Your task to perform on an android device: turn on bluetooth scan Image 0: 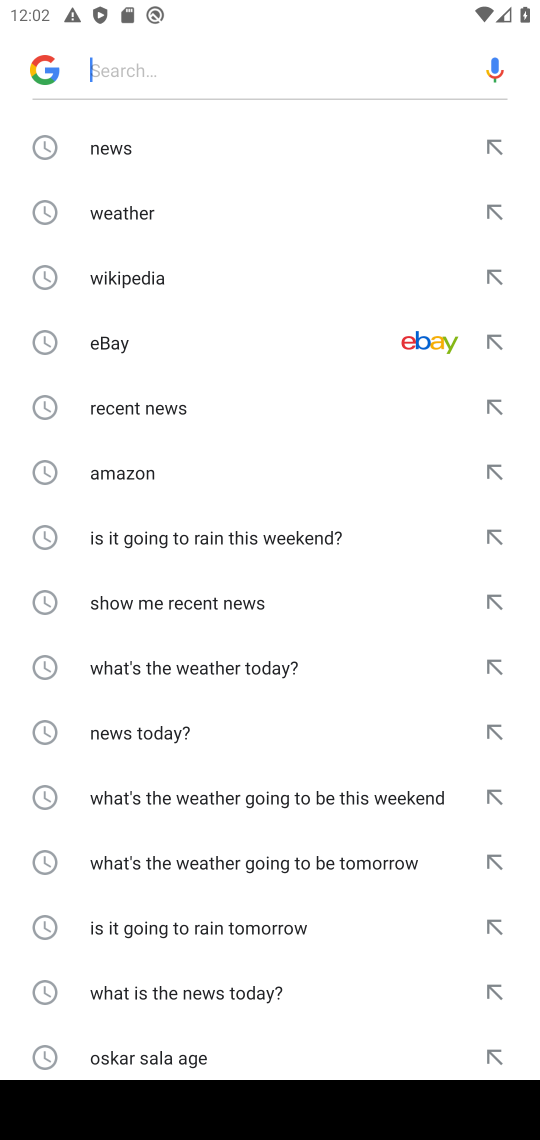
Step 0: press home button
Your task to perform on an android device: turn on bluetooth scan Image 1: 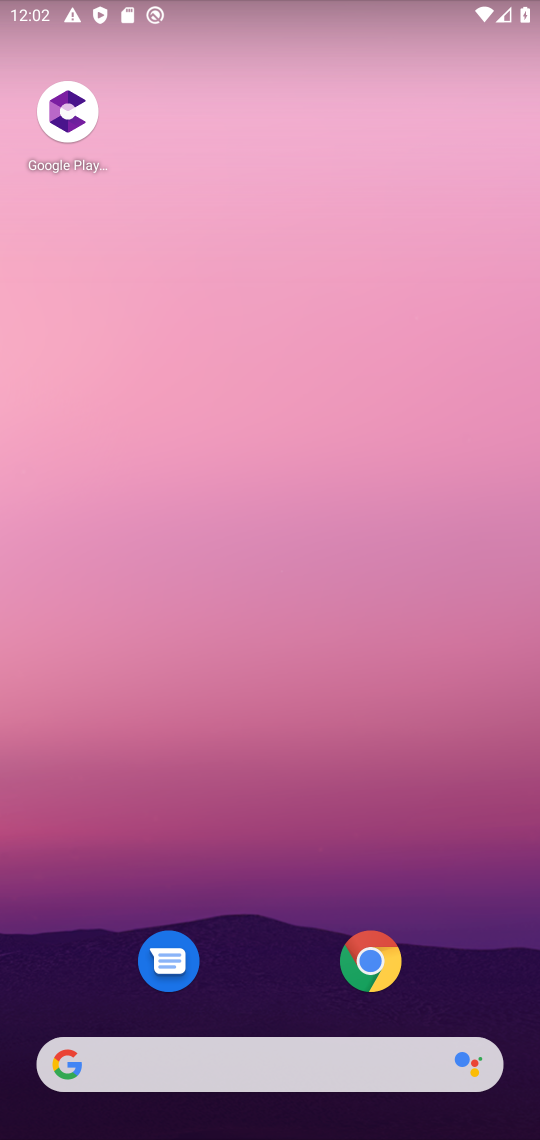
Step 1: drag from (265, 1043) to (509, 113)
Your task to perform on an android device: turn on bluetooth scan Image 2: 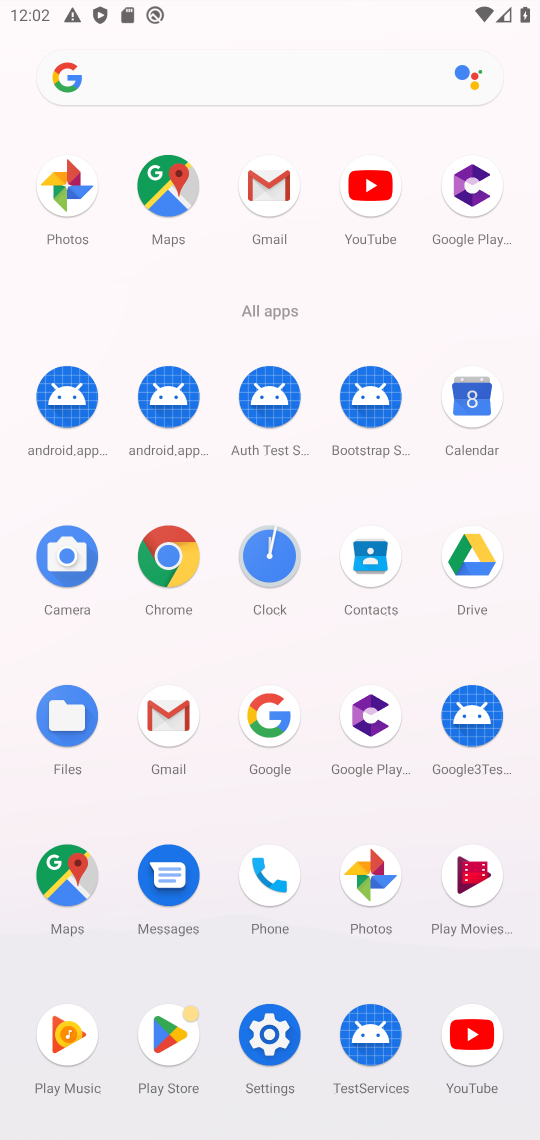
Step 2: click (272, 1015)
Your task to perform on an android device: turn on bluetooth scan Image 3: 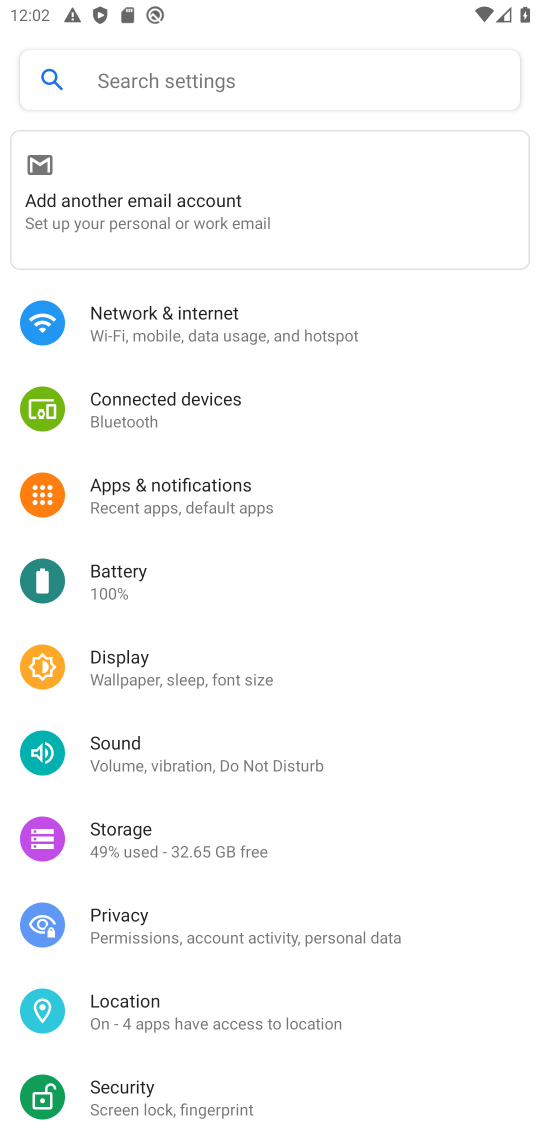
Step 3: click (169, 1011)
Your task to perform on an android device: turn on bluetooth scan Image 4: 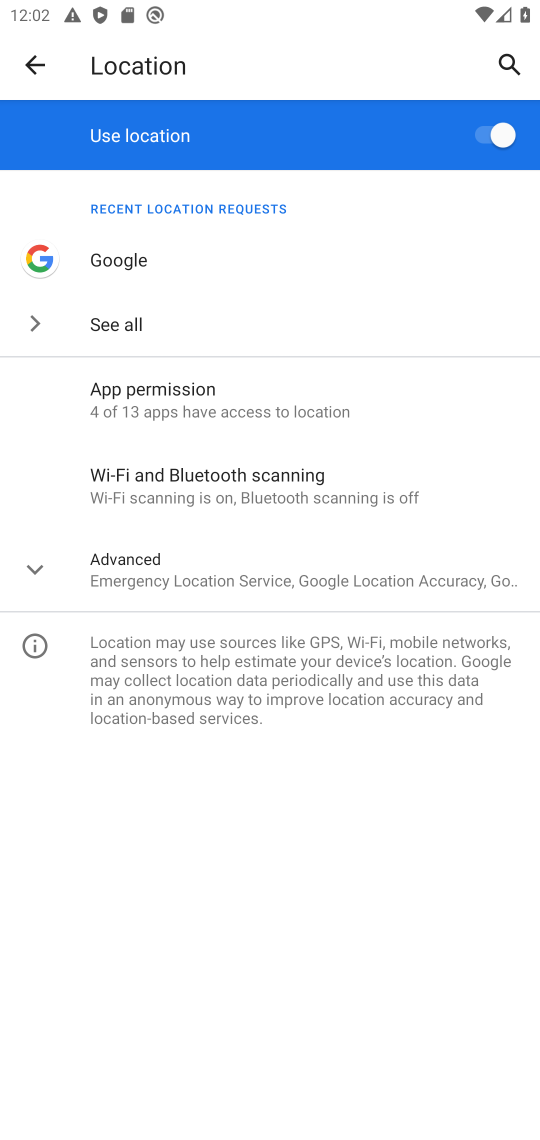
Step 4: click (200, 565)
Your task to perform on an android device: turn on bluetooth scan Image 5: 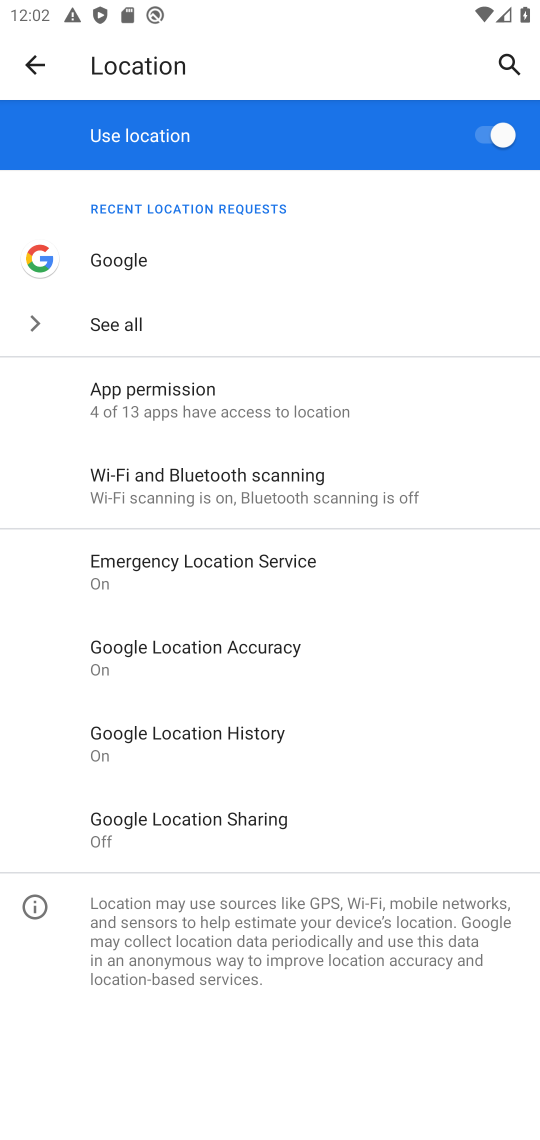
Step 5: click (230, 492)
Your task to perform on an android device: turn on bluetooth scan Image 6: 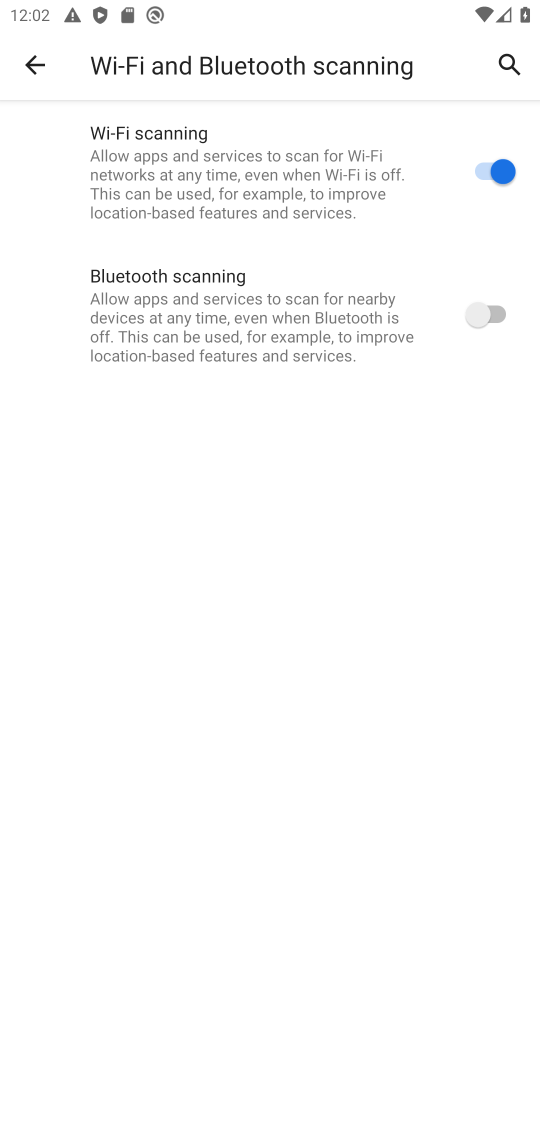
Step 6: click (493, 305)
Your task to perform on an android device: turn on bluetooth scan Image 7: 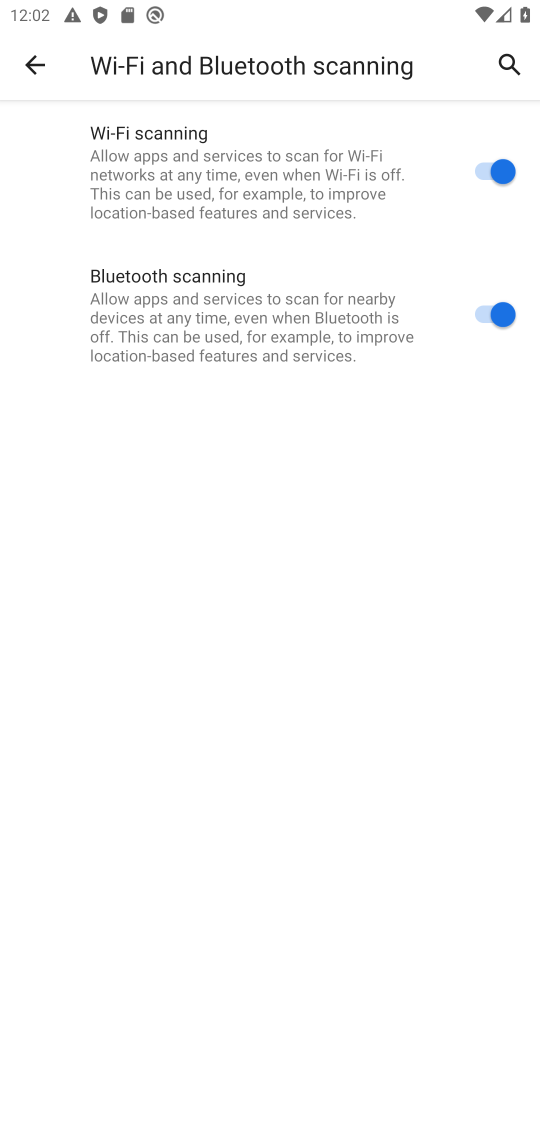
Step 7: task complete